Your task to perform on an android device: Search for a 4k TV on Best Buy Image 0: 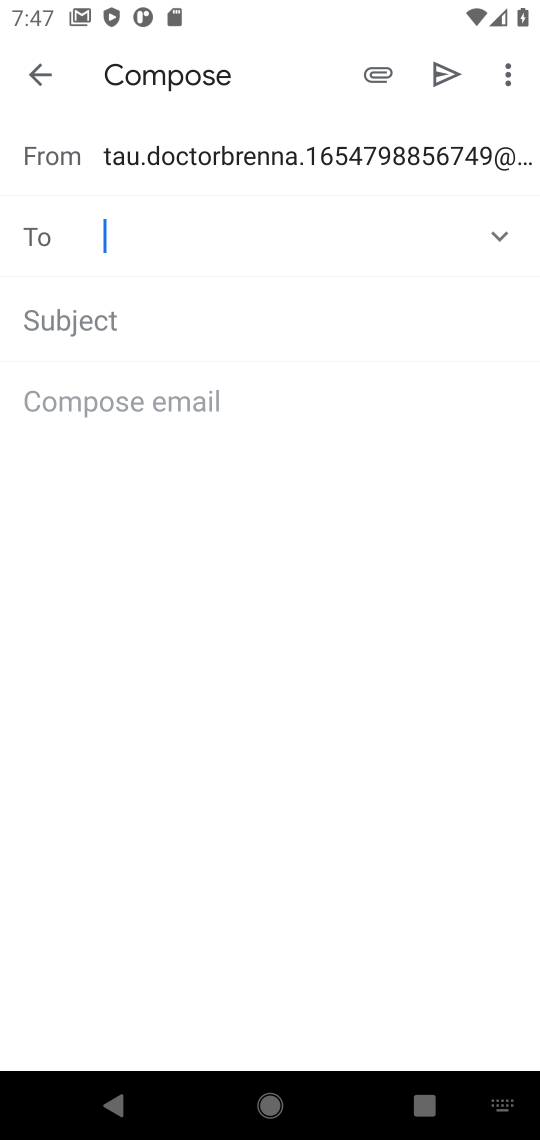
Step 0: press home button
Your task to perform on an android device: Search for a 4k TV on Best Buy Image 1: 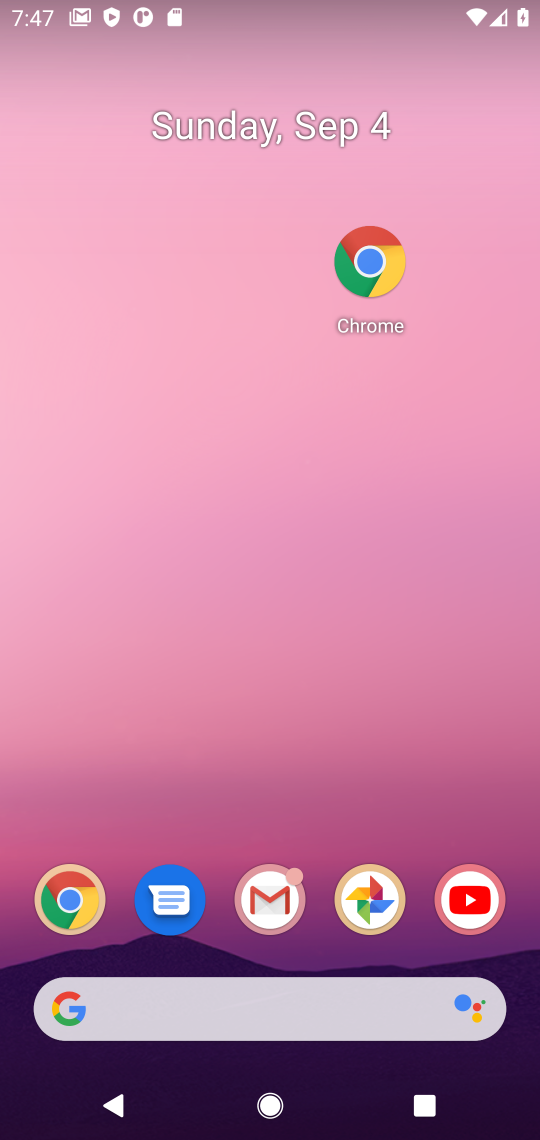
Step 1: click (386, 267)
Your task to perform on an android device: Search for a 4k TV on Best Buy Image 2: 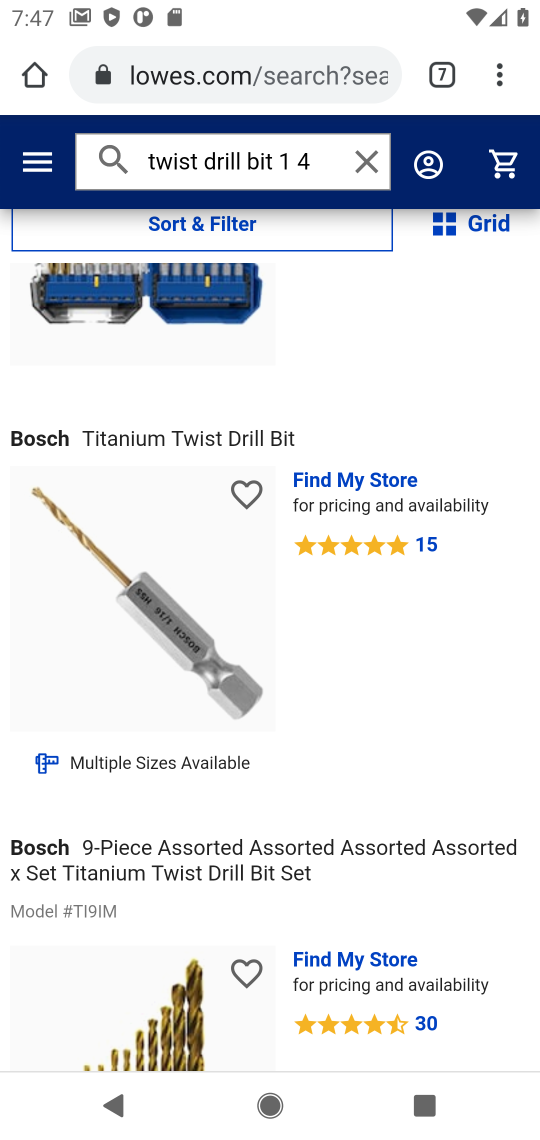
Step 2: click (439, 87)
Your task to perform on an android device: Search for a 4k TV on Best Buy Image 3: 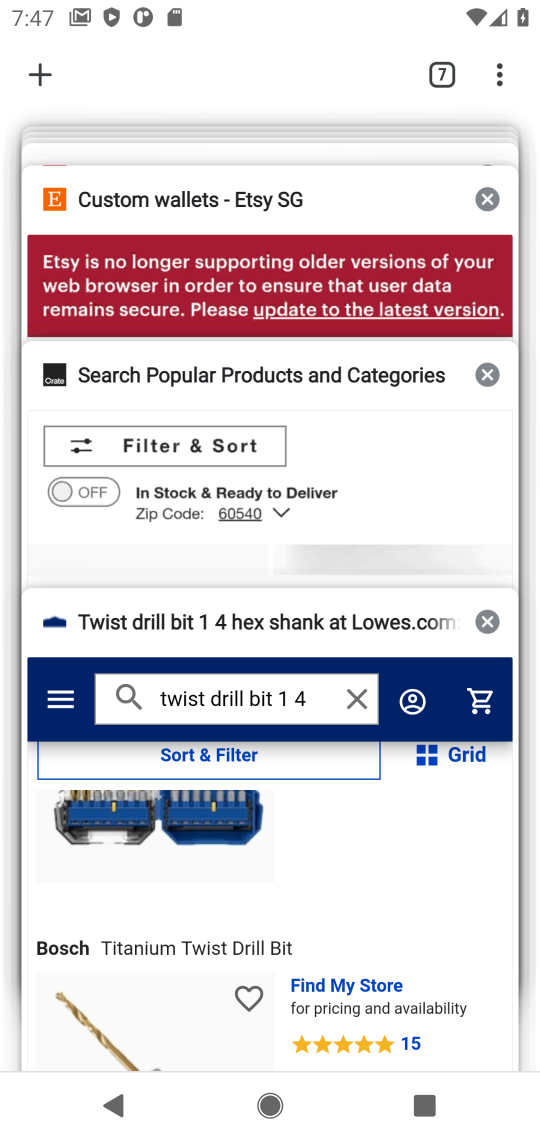
Step 3: click (28, 76)
Your task to perform on an android device: Search for a 4k TV on Best Buy Image 4: 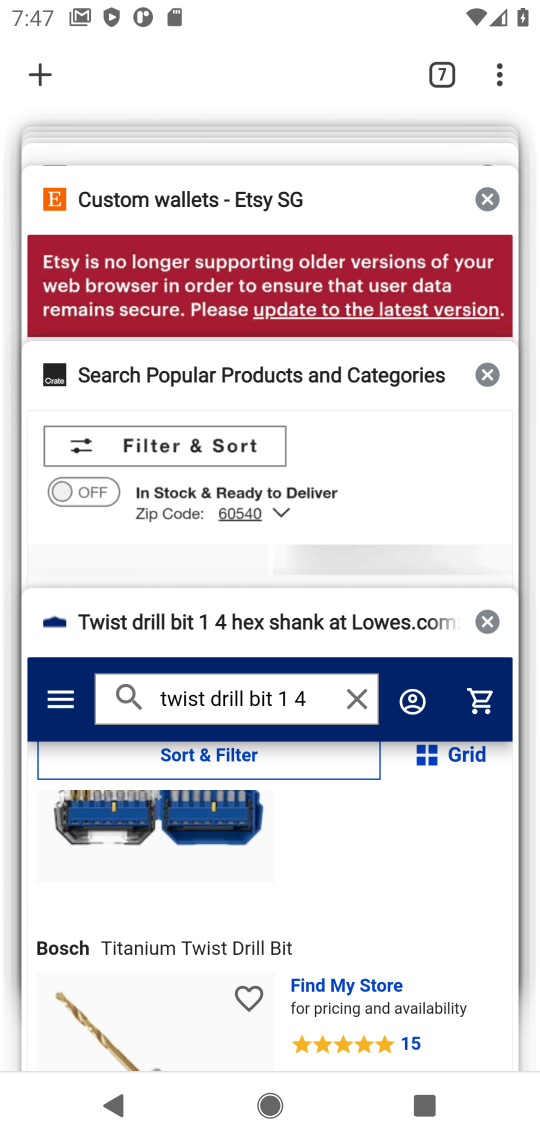
Step 4: click (28, 76)
Your task to perform on an android device: Search for a 4k TV on Best Buy Image 5: 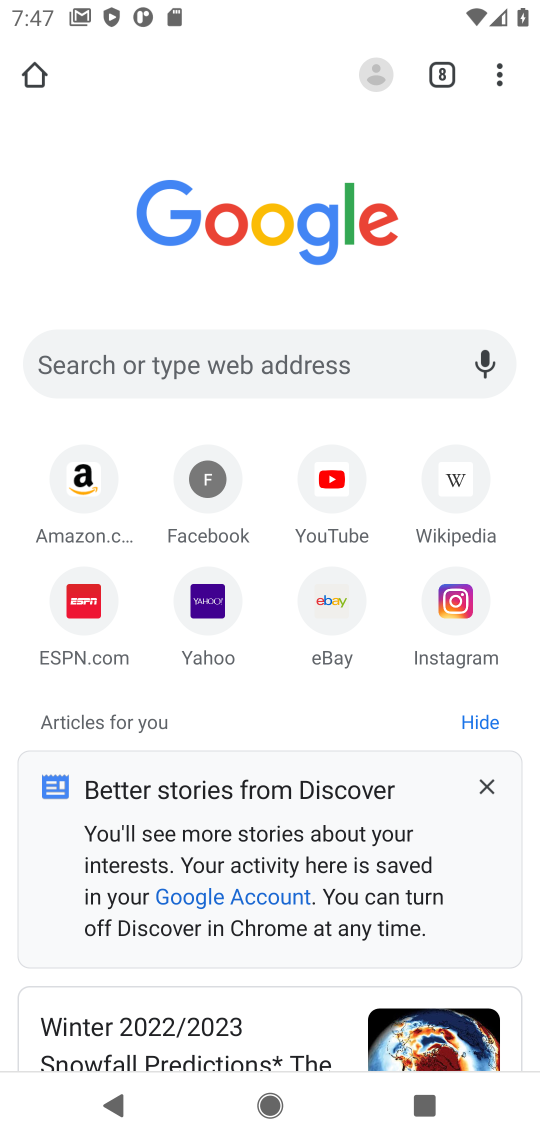
Step 5: click (279, 356)
Your task to perform on an android device: Search for a 4k TV on Best Buy Image 6: 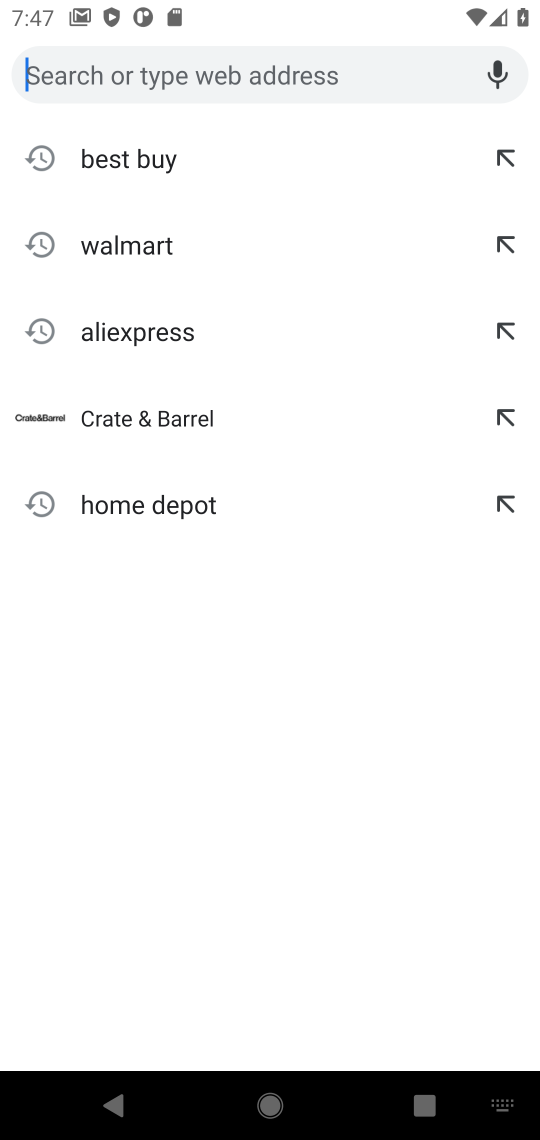
Step 6: click (133, 157)
Your task to perform on an android device: Search for a 4k TV on Best Buy Image 7: 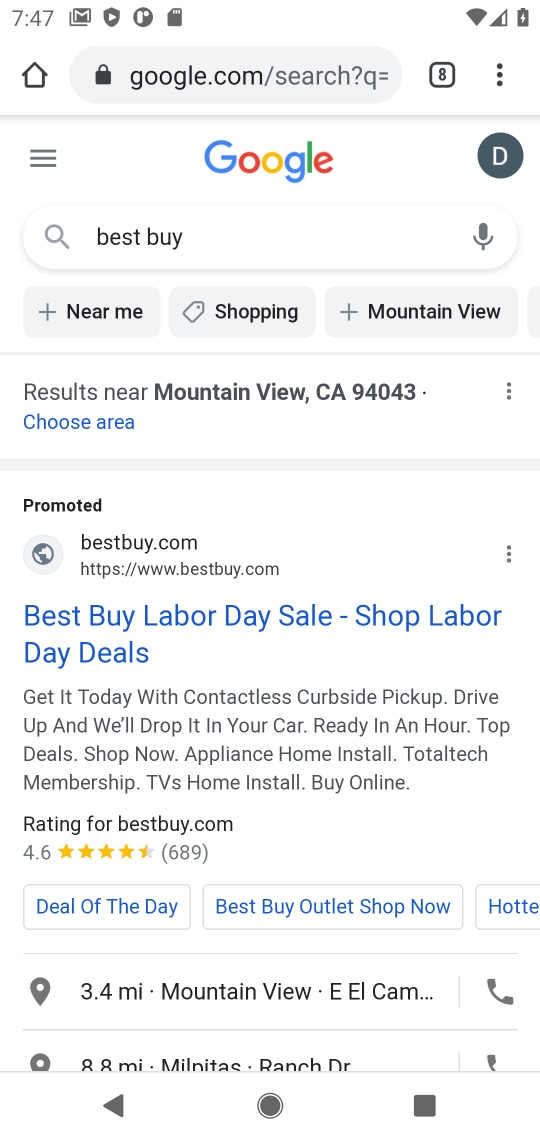
Step 7: click (291, 602)
Your task to perform on an android device: Search for a 4k TV on Best Buy Image 8: 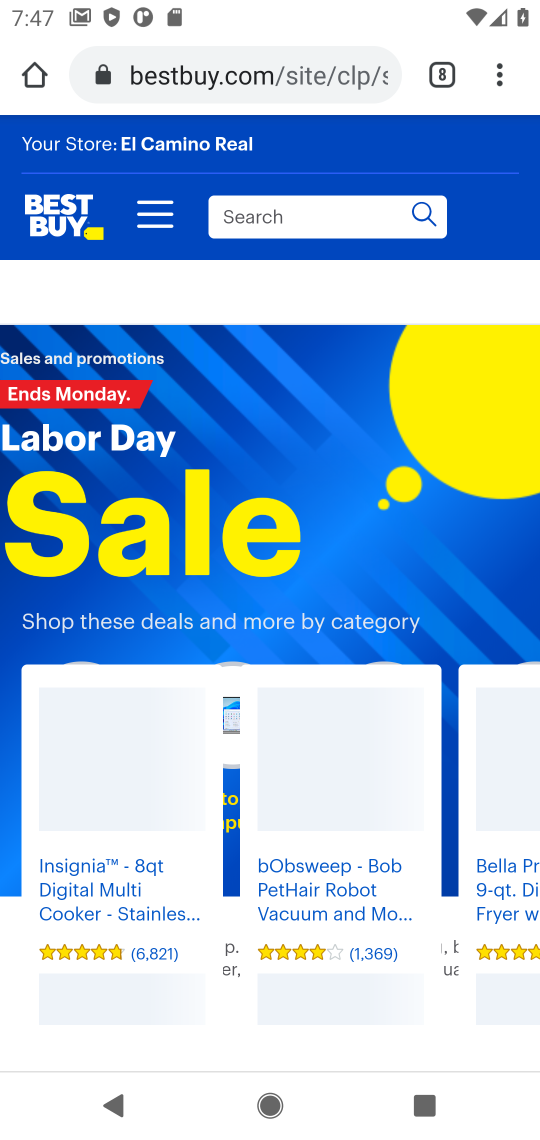
Step 8: click (262, 206)
Your task to perform on an android device: Search for a 4k TV on Best Buy Image 9: 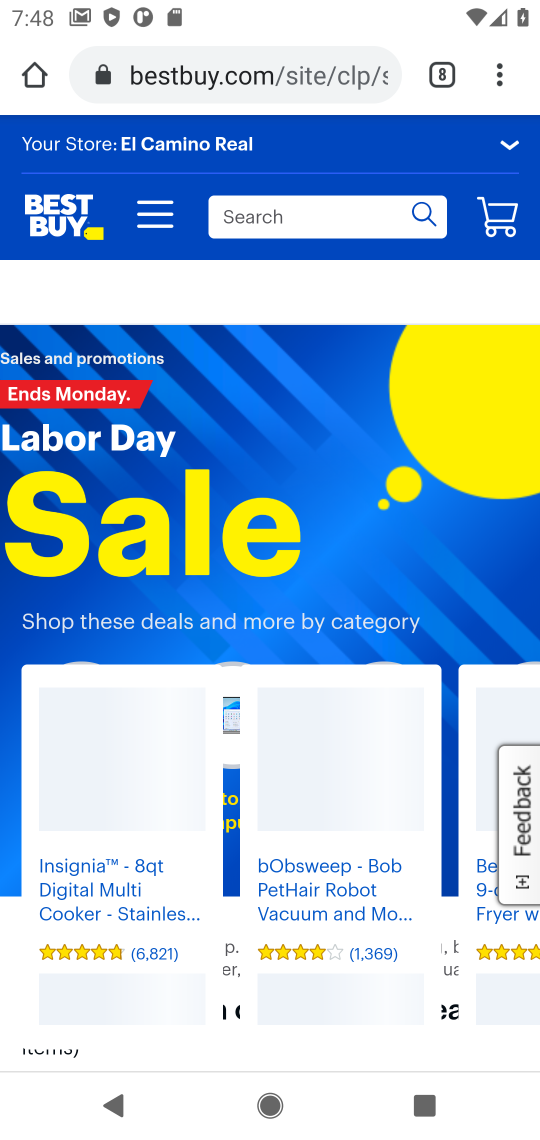
Step 9: type "4k tv"
Your task to perform on an android device: Search for a 4k TV on Best Buy Image 10: 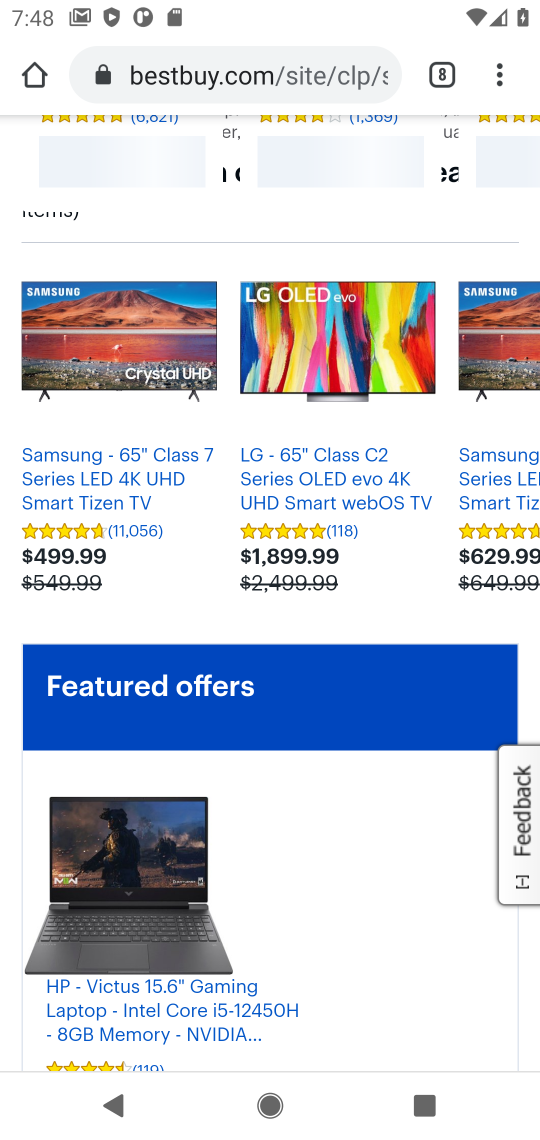
Step 10: task complete